Your task to perform on an android device: toggle location history Image 0: 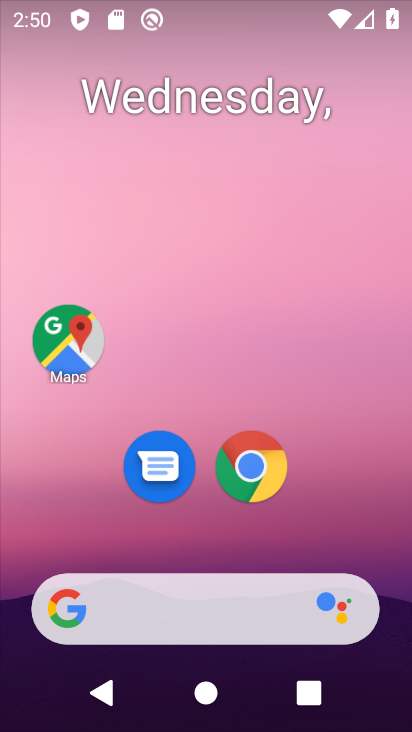
Step 0: drag from (227, 588) to (154, 0)
Your task to perform on an android device: toggle location history Image 1: 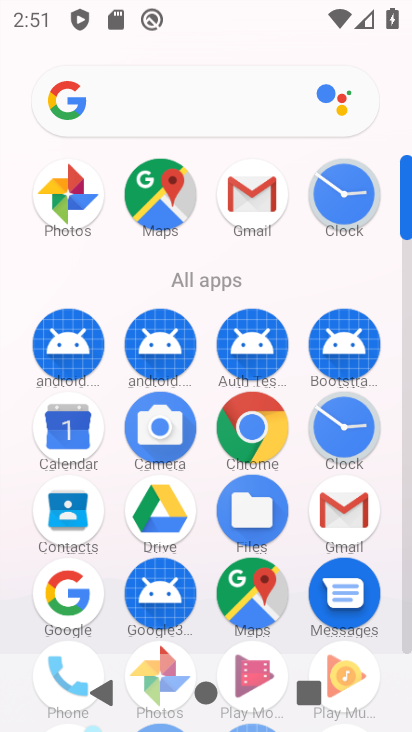
Step 1: drag from (113, 576) to (98, 63)
Your task to perform on an android device: toggle location history Image 2: 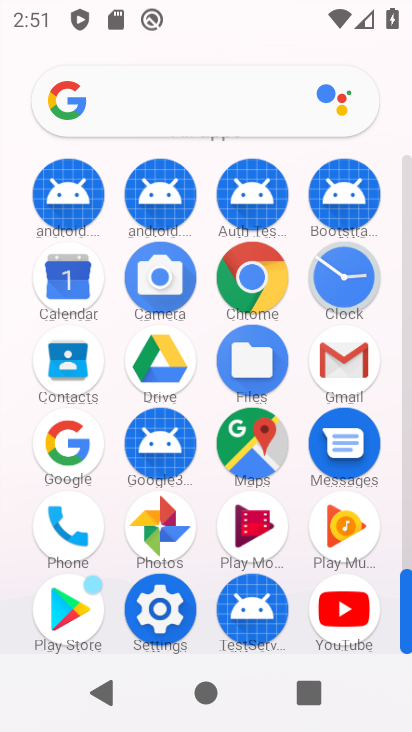
Step 2: click (174, 595)
Your task to perform on an android device: toggle location history Image 3: 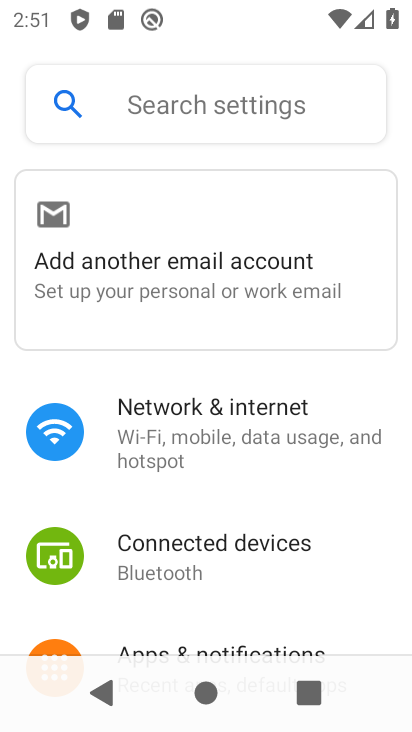
Step 3: drag from (177, 548) to (114, 56)
Your task to perform on an android device: toggle location history Image 4: 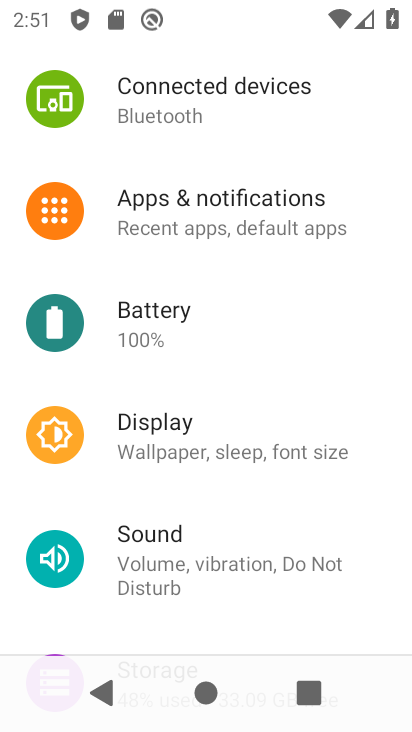
Step 4: drag from (277, 500) to (209, 94)
Your task to perform on an android device: toggle location history Image 5: 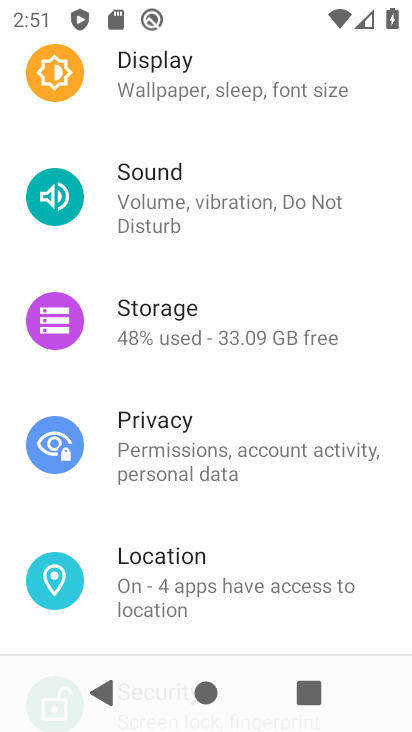
Step 5: click (234, 548)
Your task to perform on an android device: toggle location history Image 6: 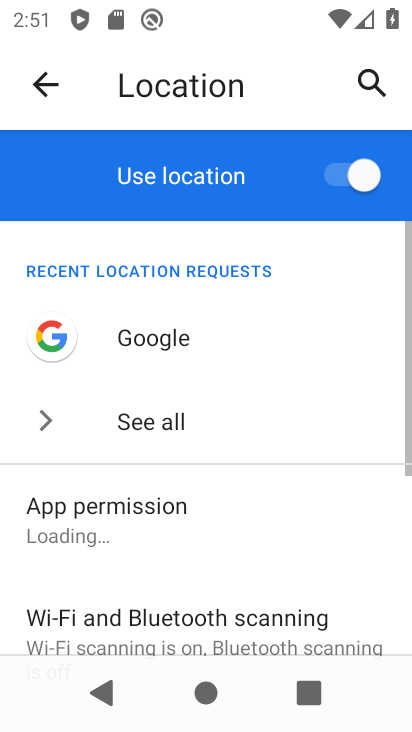
Step 6: drag from (241, 632) to (220, 142)
Your task to perform on an android device: toggle location history Image 7: 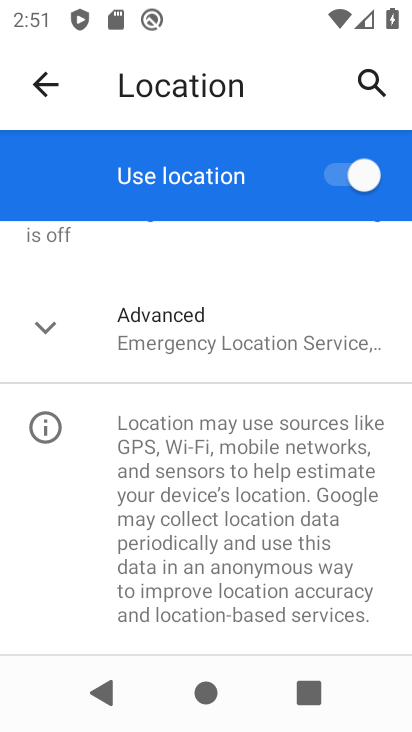
Step 7: click (196, 357)
Your task to perform on an android device: toggle location history Image 8: 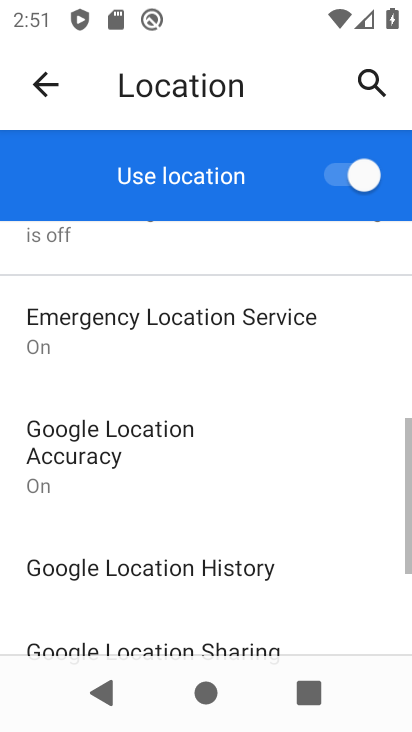
Step 8: click (223, 573)
Your task to perform on an android device: toggle location history Image 9: 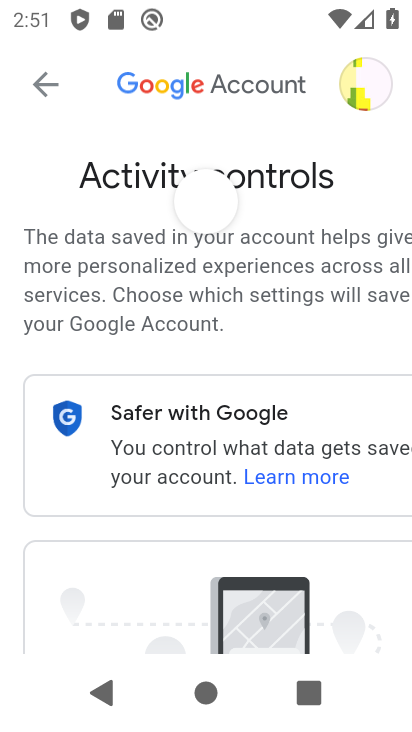
Step 9: drag from (304, 587) to (130, 37)
Your task to perform on an android device: toggle location history Image 10: 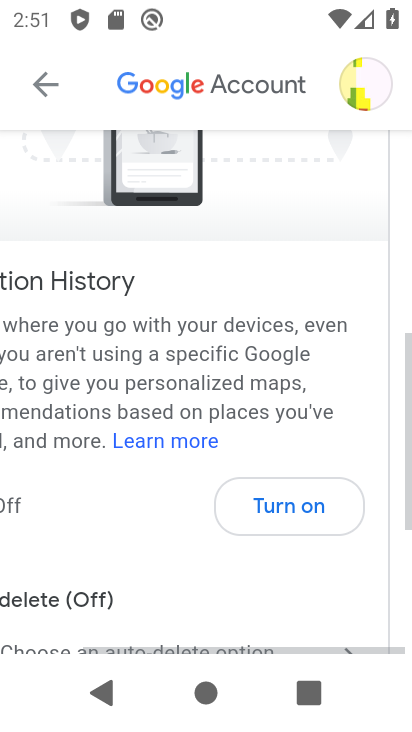
Step 10: drag from (294, 492) to (255, 189)
Your task to perform on an android device: toggle location history Image 11: 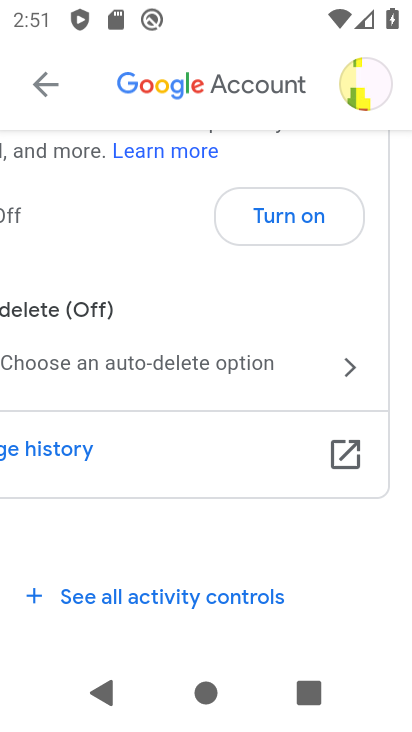
Step 11: click (284, 218)
Your task to perform on an android device: toggle location history Image 12: 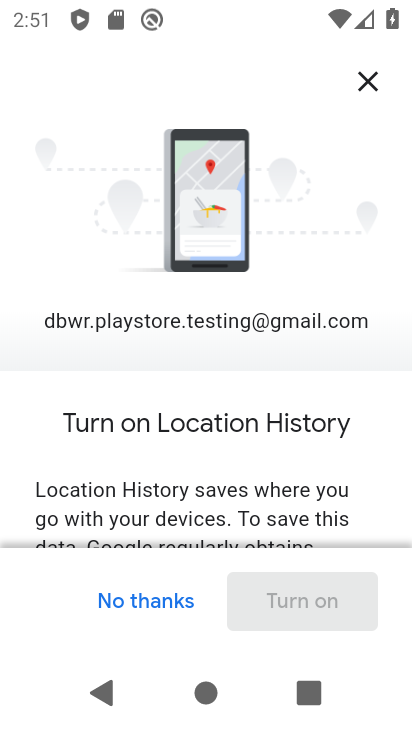
Step 12: drag from (324, 497) to (257, 56)
Your task to perform on an android device: toggle location history Image 13: 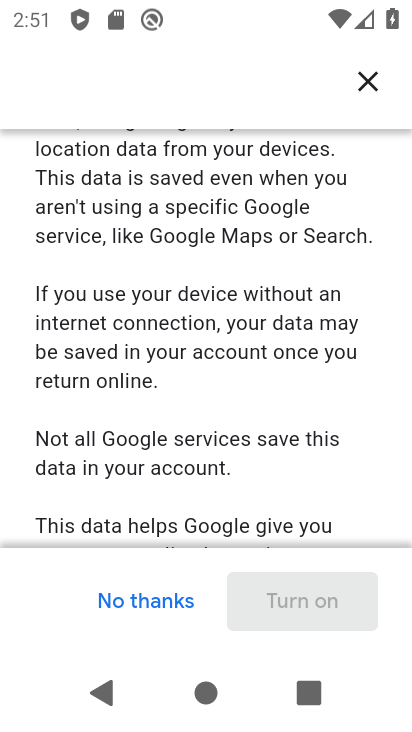
Step 13: drag from (219, 444) to (178, 60)
Your task to perform on an android device: toggle location history Image 14: 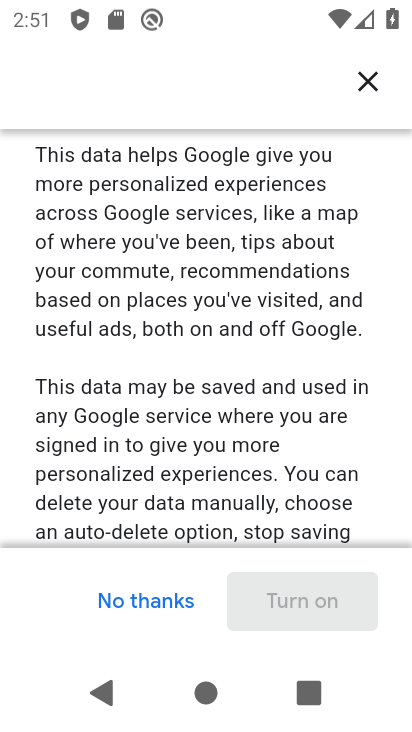
Step 14: drag from (251, 514) to (196, 104)
Your task to perform on an android device: toggle location history Image 15: 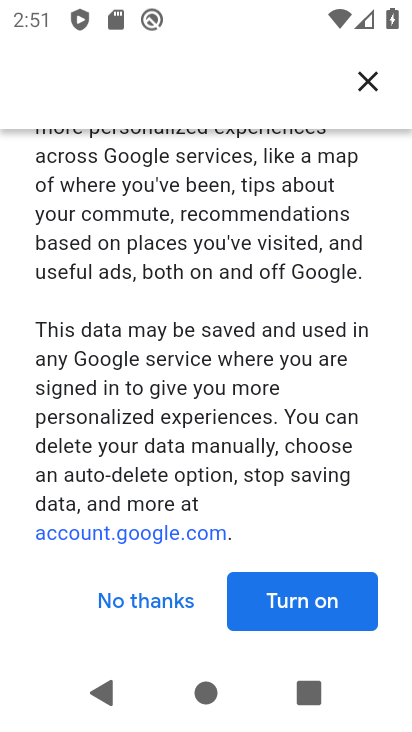
Step 15: click (264, 590)
Your task to perform on an android device: toggle location history Image 16: 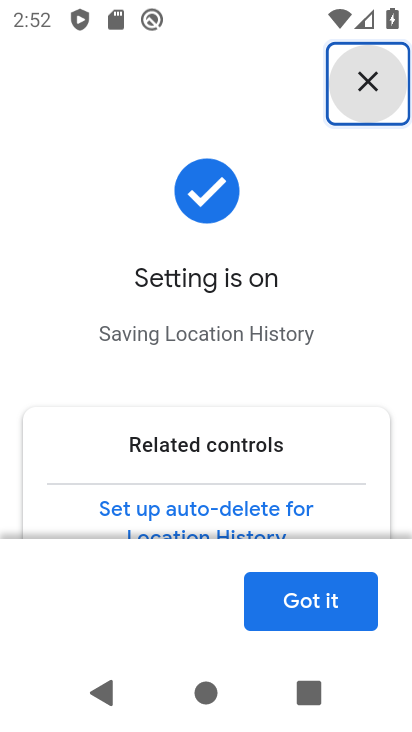
Step 16: click (339, 620)
Your task to perform on an android device: toggle location history Image 17: 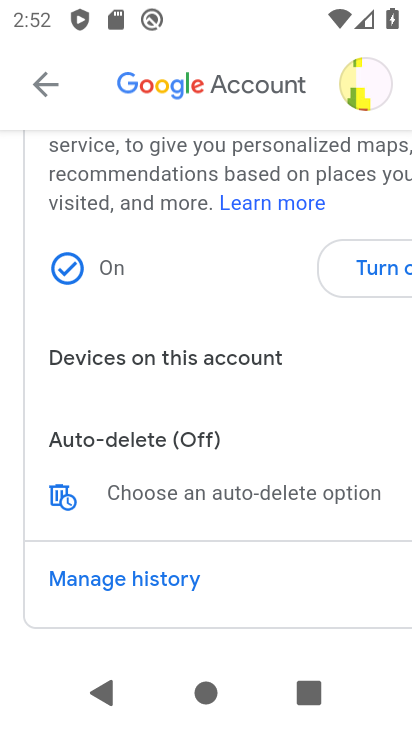
Step 17: task complete